Your task to perform on an android device: Go to Amazon Image 0: 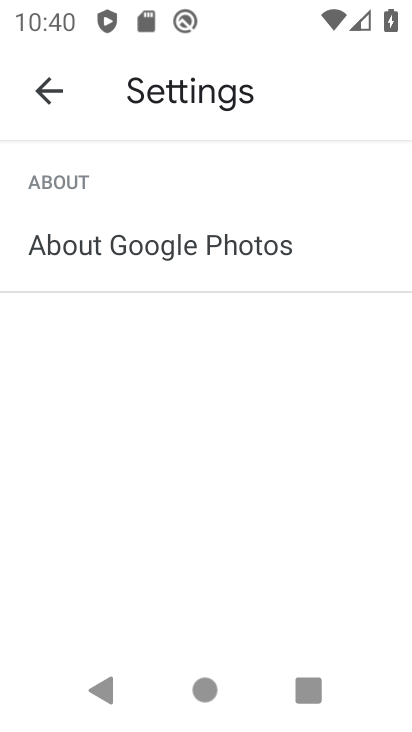
Step 0: press home button
Your task to perform on an android device: Go to Amazon Image 1: 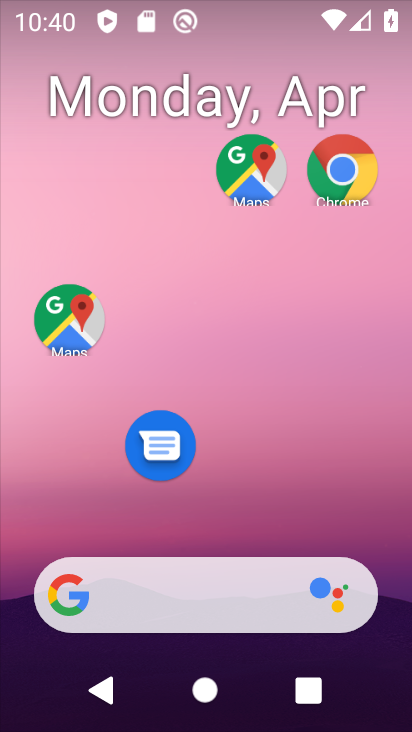
Step 1: click (344, 172)
Your task to perform on an android device: Go to Amazon Image 2: 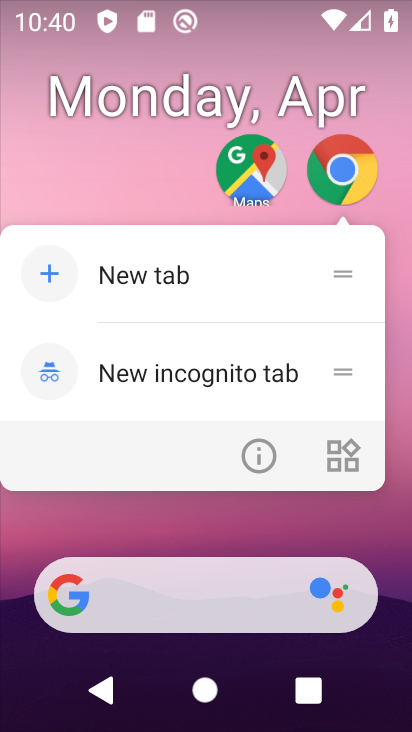
Step 2: click (344, 171)
Your task to perform on an android device: Go to Amazon Image 3: 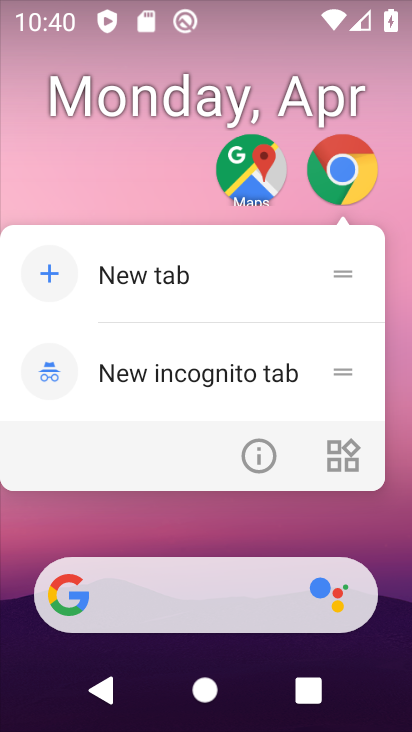
Step 3: click (352, 186)
Your task to perform on an android device: Go to Amazon Image 4: 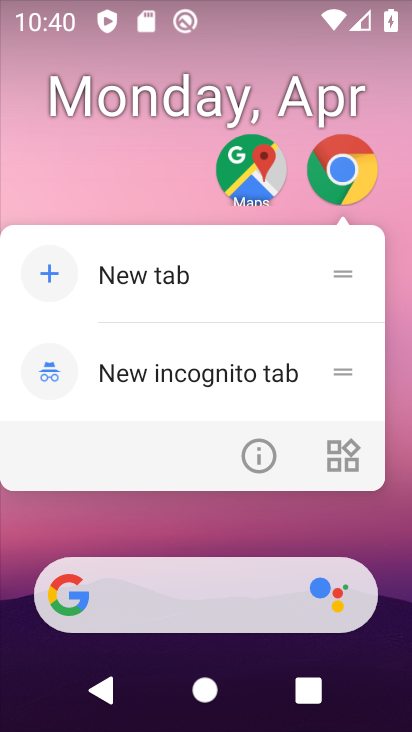
Step 4: click (352, 183)
Your task to perform on an android device: Go to Amazon Image 5: 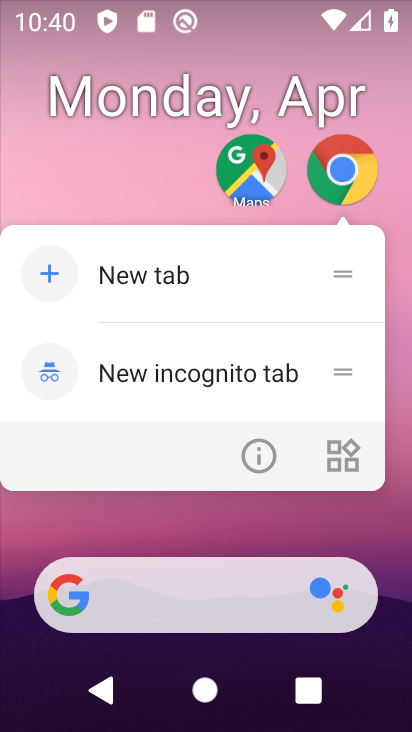
Step 5: click (330, 189)
Your task to perform on an android device: Go to Amazon Image 6: 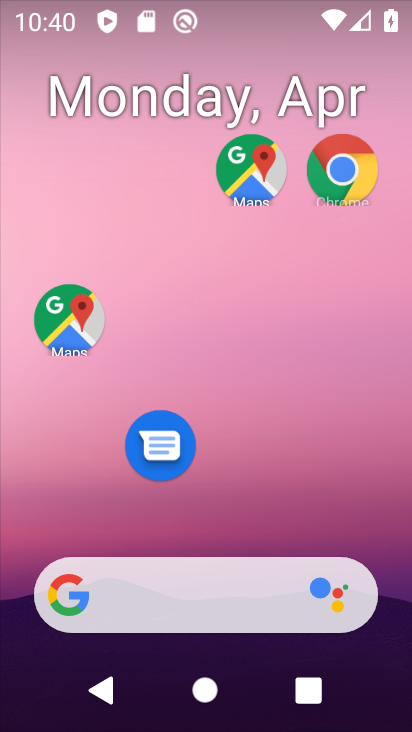
Step 6: click (330, 189)
Your task to perform on an android device: Go to Amazon Image 7: 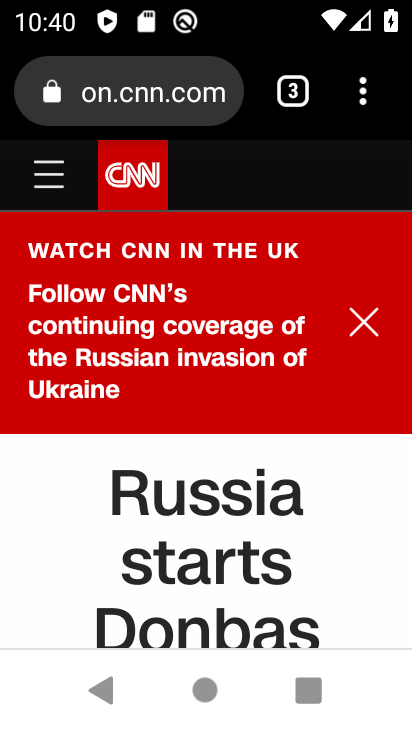
Step 7: click (295, 74)
Your task to perform on an android device: Go to Amazon Image 8: 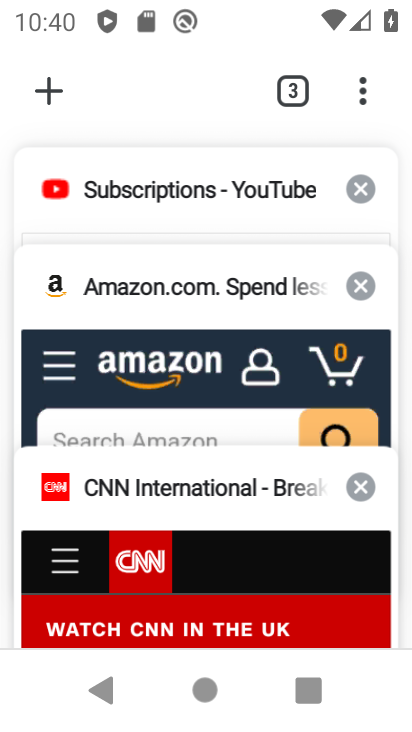
Step 8: click (46, 84)
Your task to perform on an android device: Go to Amazon Image 9: 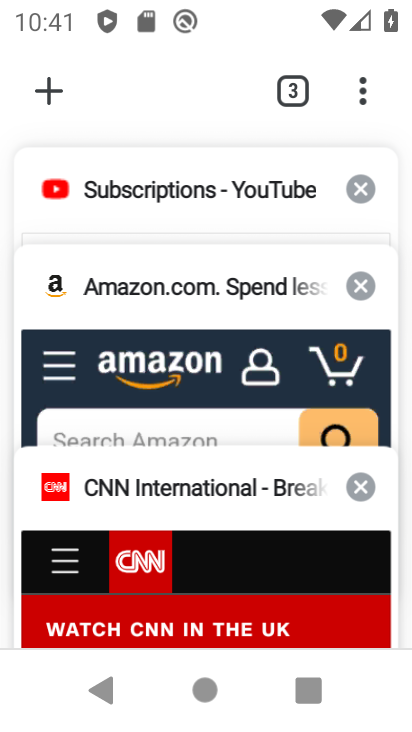
Step 9: click (173, 370)
Your task to perform on an android device: Go to Amazon Image 10: 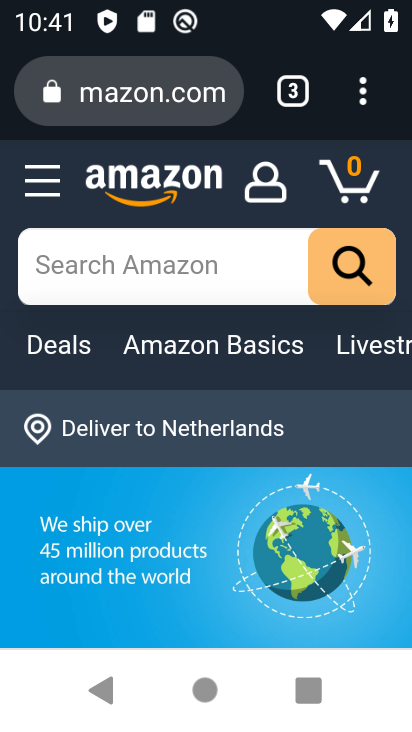
Step 10: task complete